Your task to perform on an android device: Clear all items from cart on newegg.com. Search for razer naga on newegg.com, select the first entry, add it to the cart, then select checkout. Image 0: 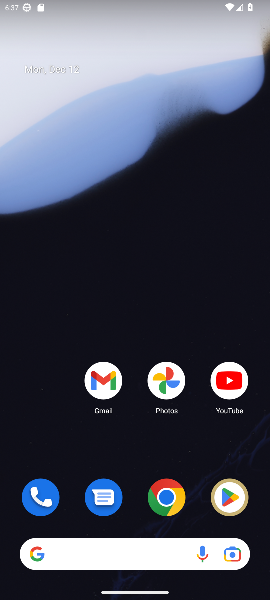
Step 0: press home button
Your task to perform on an android device: Clear all items from cart on newegg.com. Search for razer naga on newegg.com, select the first entry, add it to the cart, then select checkout. Image 1: 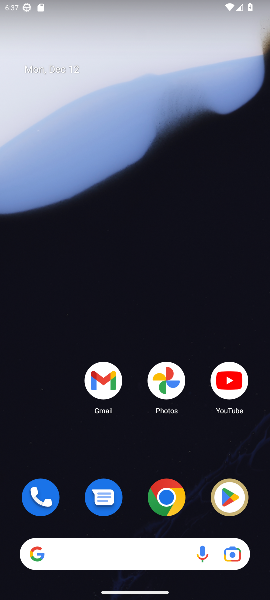
Step 1: click (69, 560)
Your task to perform on an android device: Clear all items from cart on newegg.com. Search for razer naga on newegg.com, select the first entry, add it to the cart, then select checkout. Image 2: 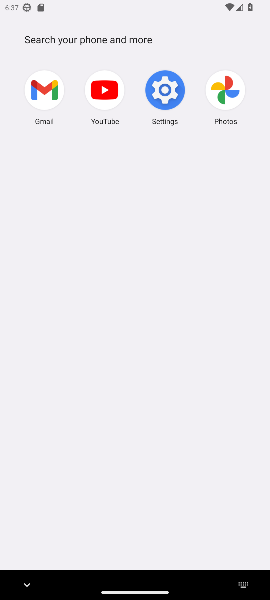
Step 2: press home button
Your task to perform on an android device: Clear all items from cart on newegg.com. Search for razer naga on newegg.com, select the first entry, add it to the cart, then select checkout. Image 3: 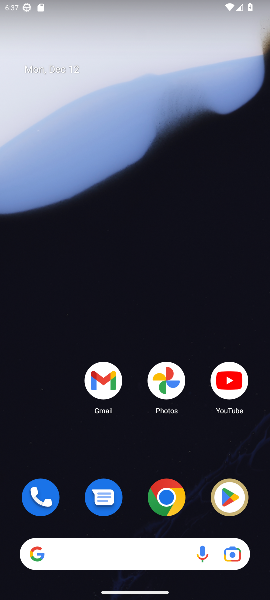
Step 3: drag from (54, 433) to (43, 76)
Your task to perform on an android device: Clear all items from cart on newegg.com. Search for razer naga on newegg.com, select the first entry, add it to the cart, then select checkout. Image 4: 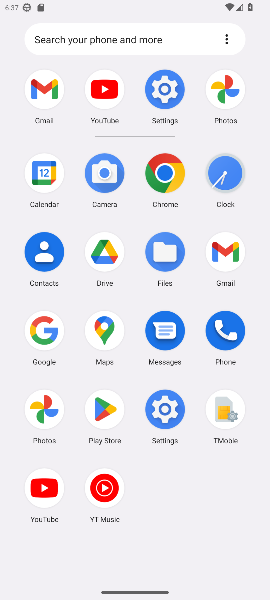
Step 4: click (31, 332)
Your task to perform on an android device: Clear all items from cart on newegg.com. Search for razer naga on newegg.com, select the first entry, add it to the cart, then select checkout. Image 5: 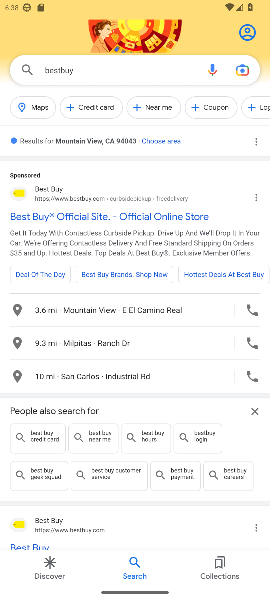
Step 5: click (132, 64)
Your task to perform on an android device: Clear all items from cart on newegg.com. Search for razer naga on newegg.com, select the first entry, add it to the cart, then select checkout. Image 6: 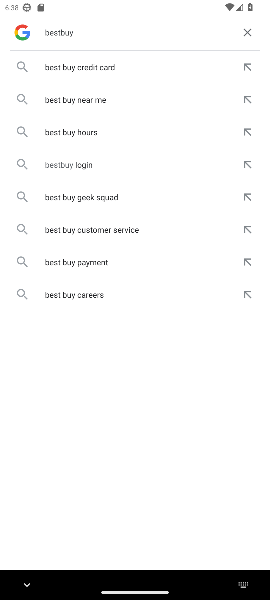
Step 6: click (246, 25)
Your task to perform on an android device: Clear all items from cart on newegg.com. Search for razer naga on newegg.com, select the first entry, add it to the cart, then select checkout. Image 7: 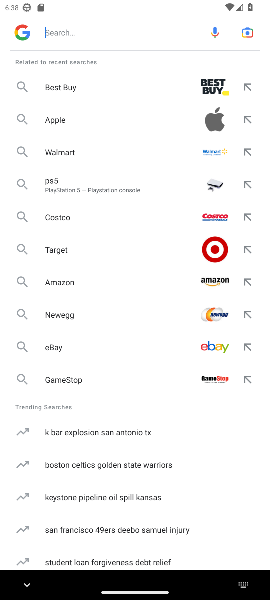
Step 7: type "newegg.com"
Your task to perform on an android device: Clear all items from cart on newegg.com. Search for razer naga on newegg.com, select the first entry, add it to the cart, then select checkout. Image 8: 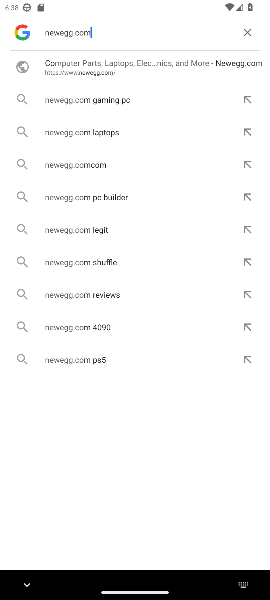
Step 8: press enter
Your task to perform on an android device: Clear all items from cart on newegg.com. Search for razer naga on newegg.com, select the first entry, add it to the cart, then select checkout. Image 9: 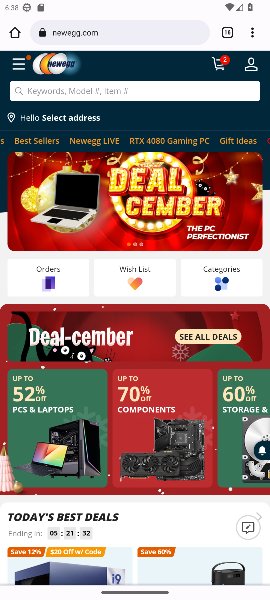
Step 9: click (216, 64)
Your task to perform on an android device: Clear all items from cart on newegg.com. Search for razer naga on newegg.com, select the first entry, add it to the cart, then select checkout. Image 10: 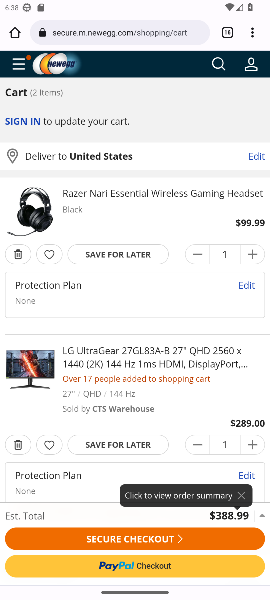
Step 10: click (14, 447)
Your task to perform on an android device: Clear all items from cart on newegg.com. Search for razer naga on newegg.com, select the first entry, add it to the cart, then select checkout. Image 11: 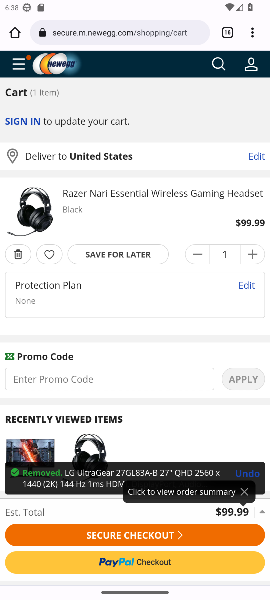
Step 11: click (15, 253)
Your task to perform on an android device: Clear all items from cart on newegg.com. Search for razer naga on newegg.com, select the first entry, add it to the cart, then select checkout. Image 12: 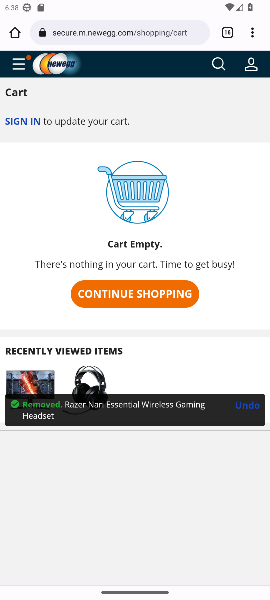
Step 12: click (218, 59)
Your task to perform on an android device: Clear all items from cart on newegg.com. Search for razer naga on newegg.com, select the first entry, add it to the cart, then select checkout. Image 13: 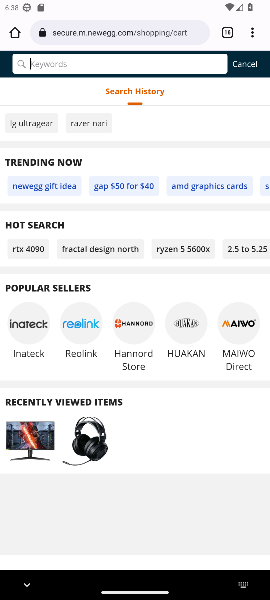
Step 13: type "razer naga"
Your task to perform on an android device: Clear all items from cart on newegg.com. Search for razer naga on newegg.com, select the first entry, add it to the cart, then select checkout. Image 14: 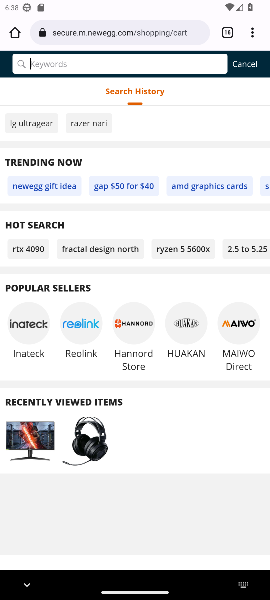
Step 14: press enter
Your task to perform on an android device: Clear all items from cart on newegg.com. Search for razer naga on newegg.com, select the first entry, add it to the cart, then select checkout. Image 15: 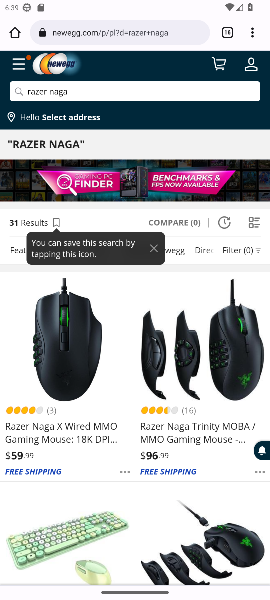
Step 15: drag from (127, 479) to (122, 244)
Your task to perform on an android device: Clear all items from cart on newegg.com. Search for razer naga on newegg.com, select the first entry, add it to the cart, then select checkout. Image 16: 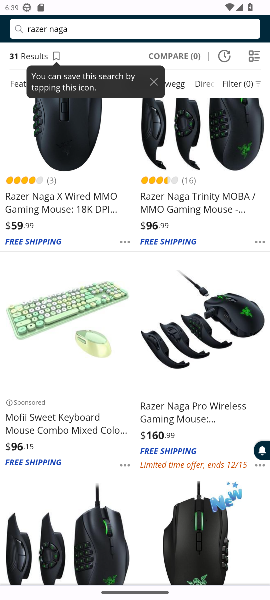
Step 16: click (32, 205)
Your task to perform on an android device: Clear all items from cart on newegg.com. Search for razer naga on newegg.com, select the first entry, add it to the cart, then select checkout. Image 17: 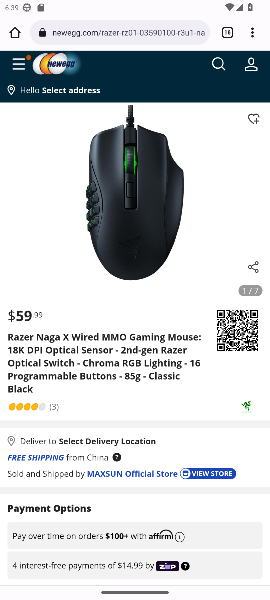
Step 17: click (128, 567)
Your task to perform on an android device: Clear all items from cart on newegg.com. Search for razer naga on newegg.com, select the first entry, add it to the cart, then select checkout. Image 18: 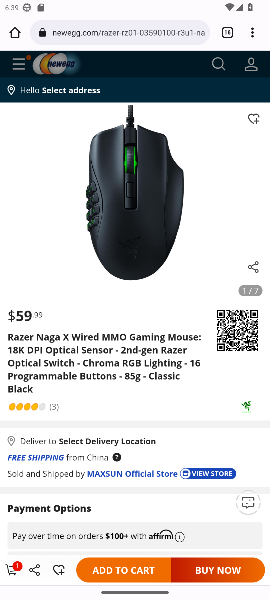
Step 18: task complete